Your task to perform on an android device: add a contact Image 0: 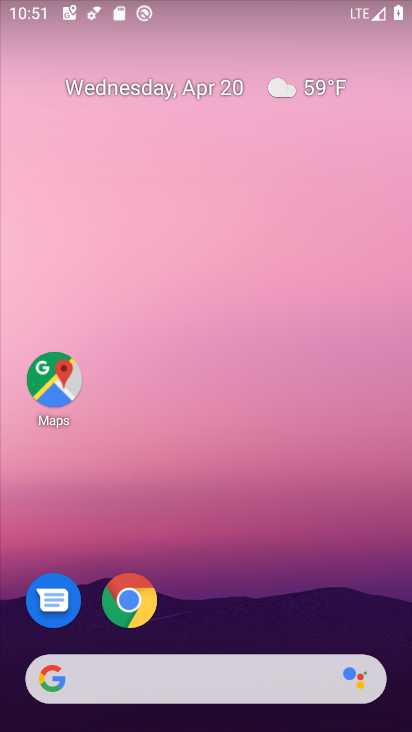
Step 0: drag from (294, 537) to (265, 83)
Your task to perform on an android device: add a contact Image 1: 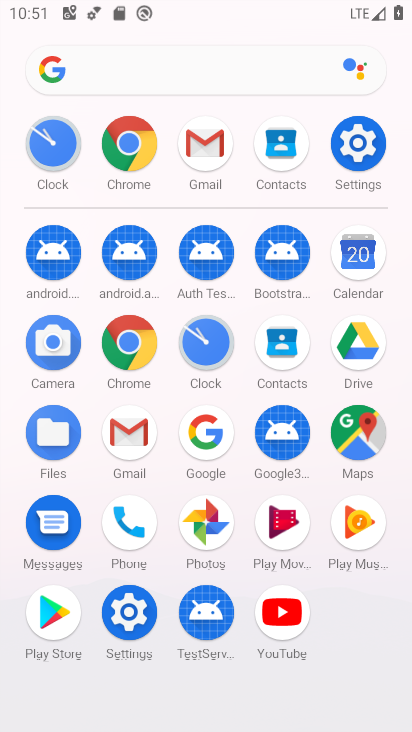
Step 1: click (283, 348)
Your task to perform on an android device: add a contact Image 2: 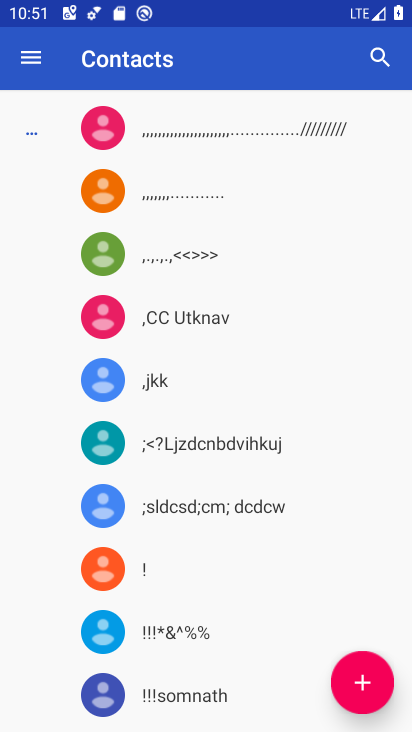
Step 2: click (362, 678)
Your task to perform on an android device: add a contact Image 3: 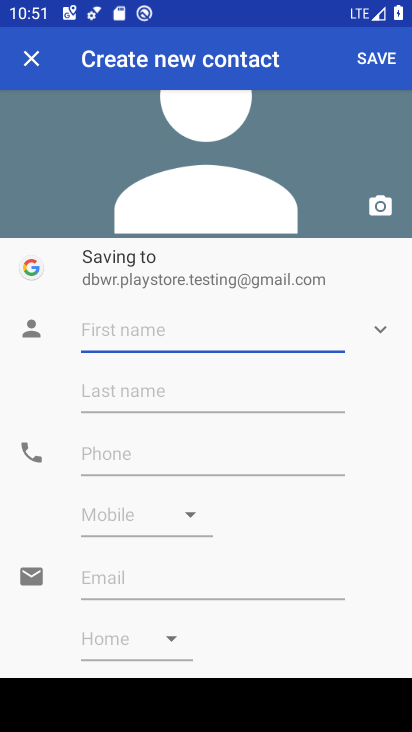
Step 3: type "Om"
Your task to perform on an android device: add a contact Image 4: 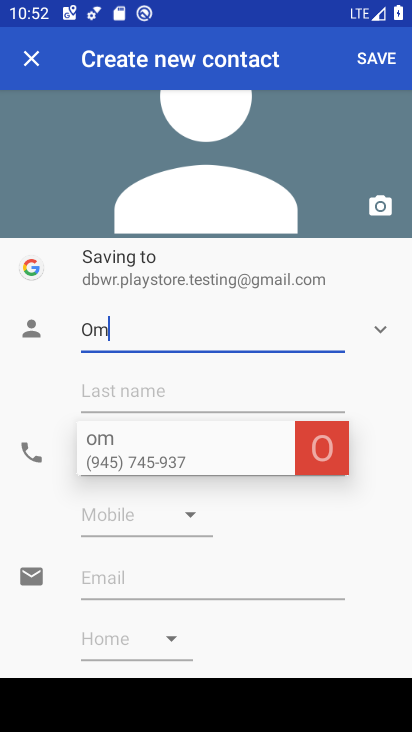
Step 4: type "Namo"
Your task to perform on an android device: add a contact Image 5: 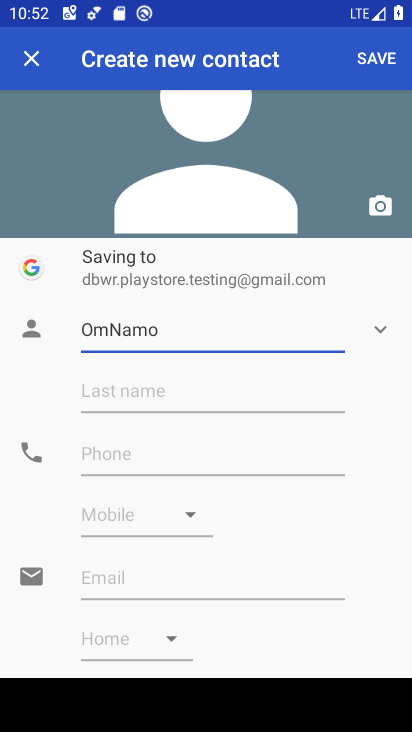
Step 5: type "Shivay"
Your task to perform on an android device: add a contact Image 6: 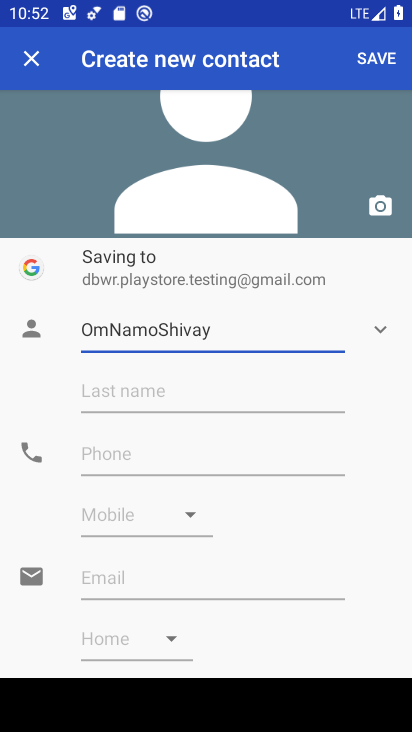
Step 6: click (326, 463)
Your task to perform on an android device: add a contact Image 7: 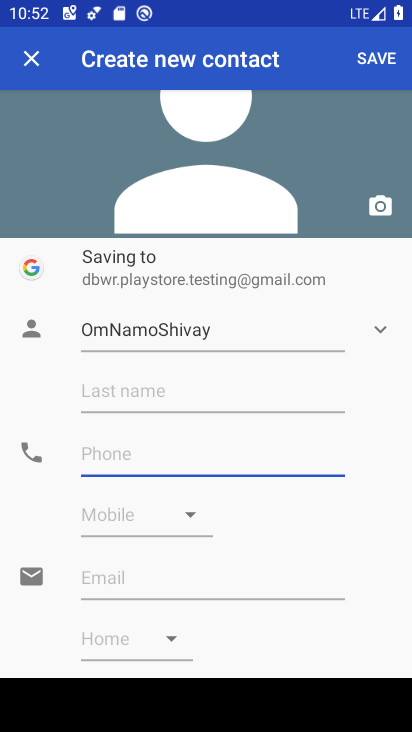
Step 7: type "919977553311"
Your task to perform on an android device: add a contact Image 8: 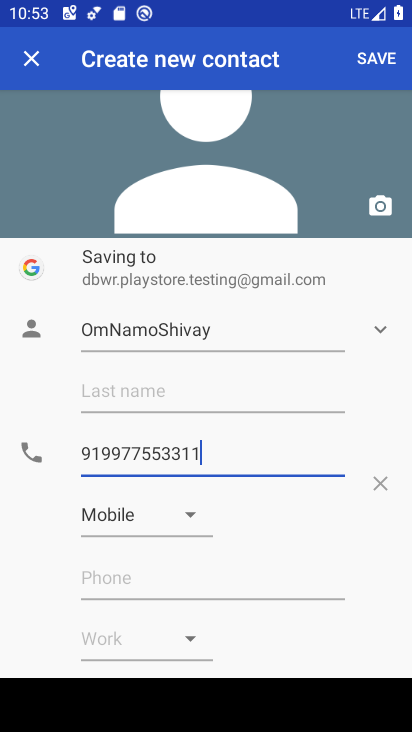
Step 8: click (374, 59)
Your task to perform on an android device: add a contact Image 9: 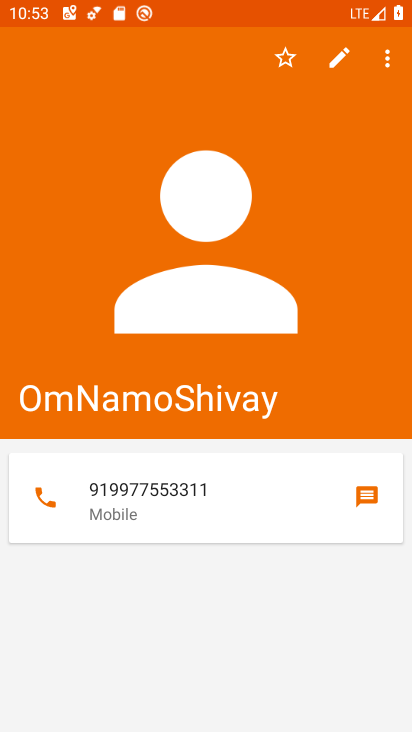
Step 9: task complete